Your task to perform on an android device: turn on location history Image 0: 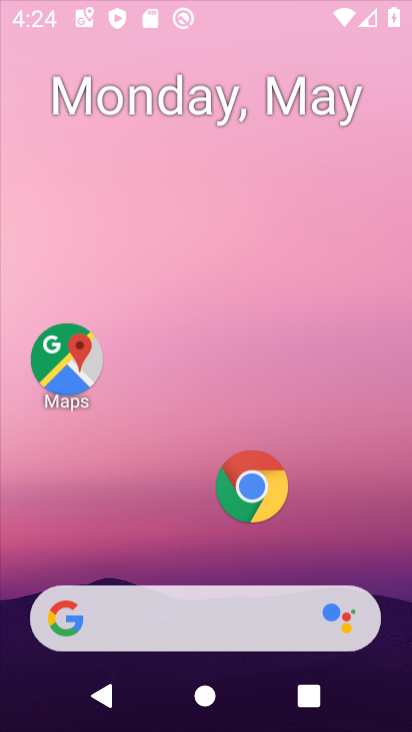
Step 0: click (141, 33)
Your task to perform on an android device: turn on location history Image 1: 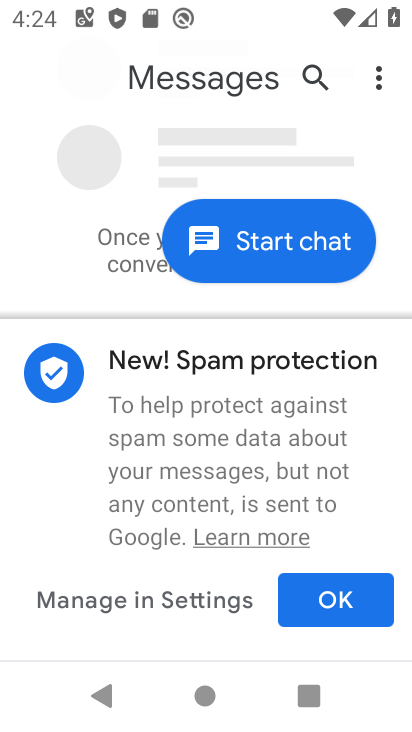
Step 1: press home button
Your task to perform on an android device: turn on location history Image 2: 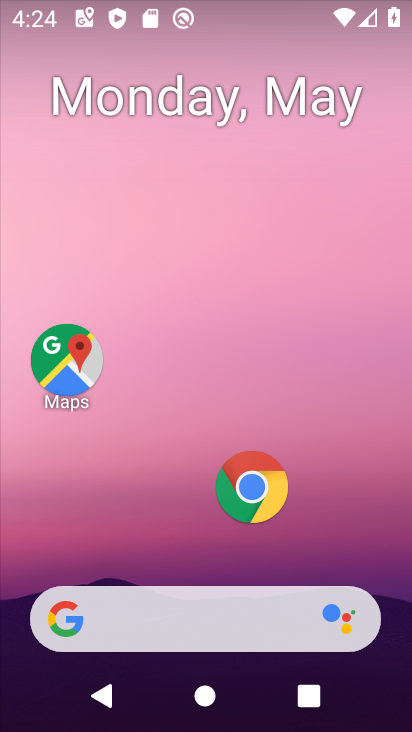
Step 2: drag from (151, 724) to (226, 32)
Your task to perform on an android device: turn on location history Image 3: 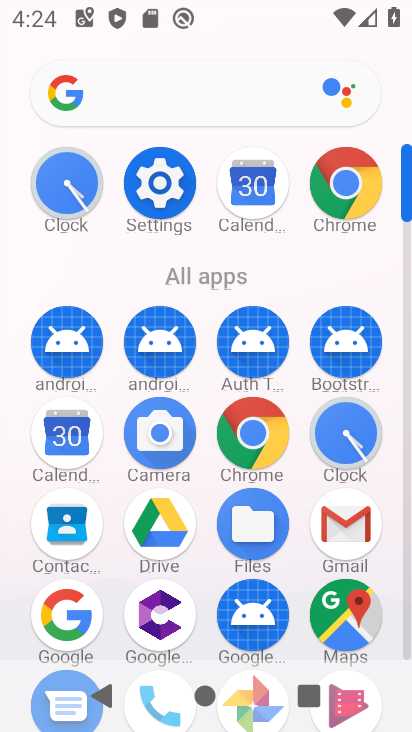
Step 3: click (145, 189)
Your task to perform on an android device: turn on location history Image 4: 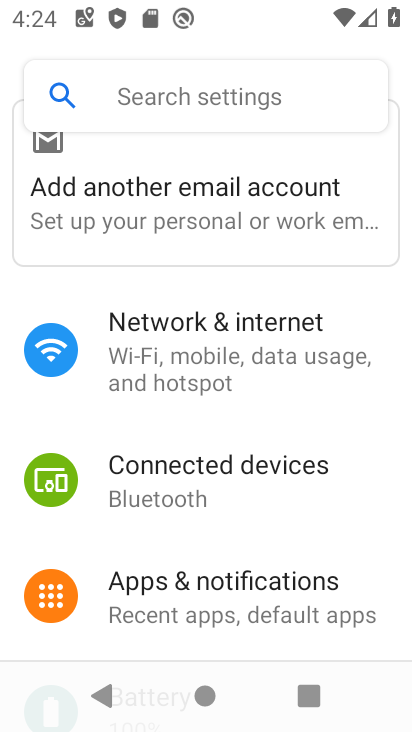
Step 4: drag from (255, 633) to (252, 108)
Your task to perform on an android device: turn on location history Image 5: 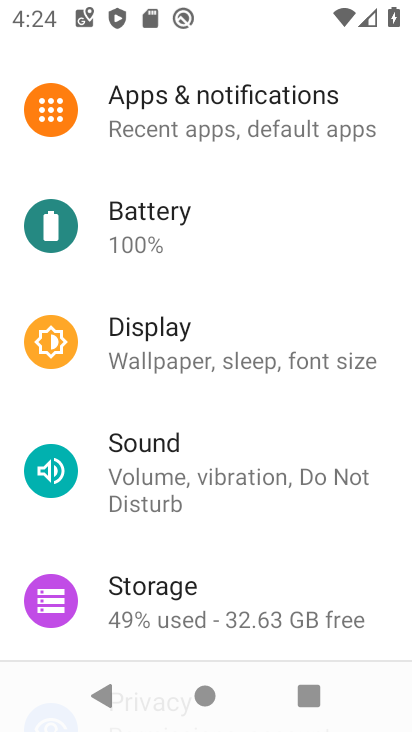
Step 5: drag from (249, 626) to (278, 189)
Your task to perform on an android device: turn on location history Image 6: 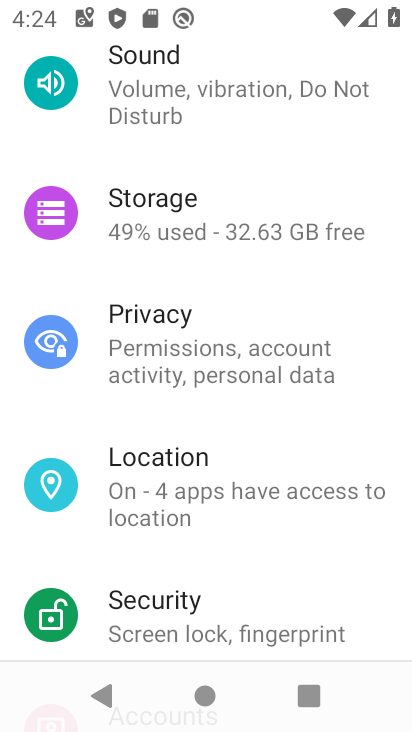
Step 6: click (155, 496)
Your task to perform on an android device: turn on location history Image 7: 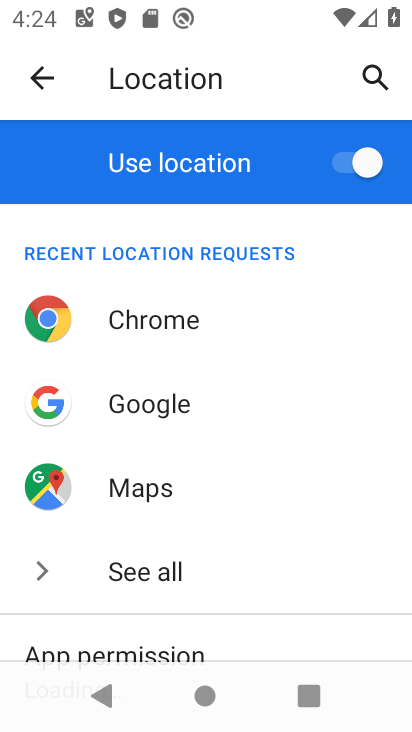
Step 7: drag from (258, 633) to (183, 109)
Your task to perform on an android device: turn on location history Image 8: 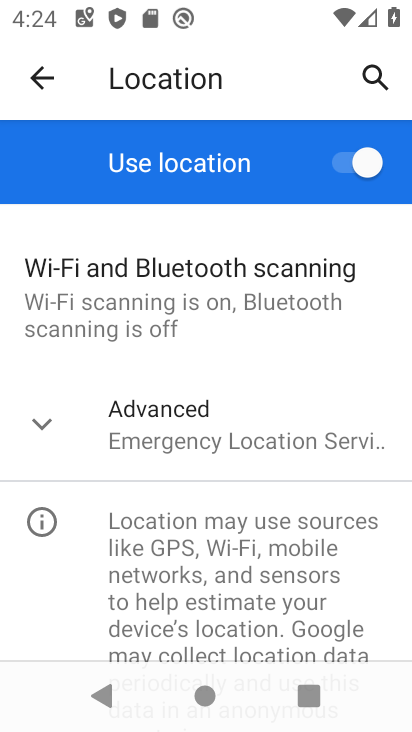
Step 8: click (174, 452)
Your task to perform on an android device: turn on location history Image 9: 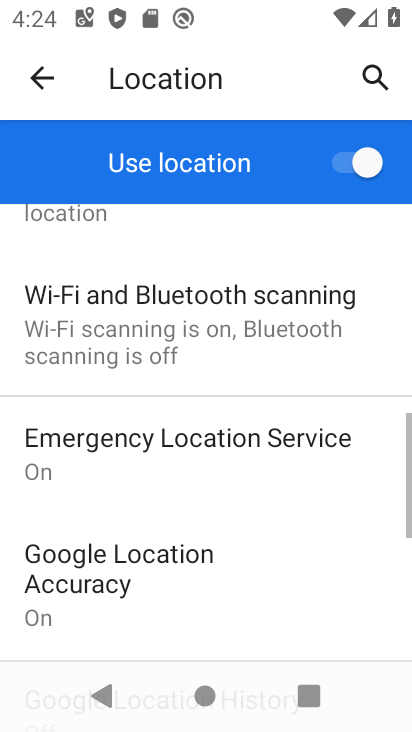
Step 9: drag from (243, 628) to (212, 288)
Your task to perform on an android device: turn on location history Image 10: 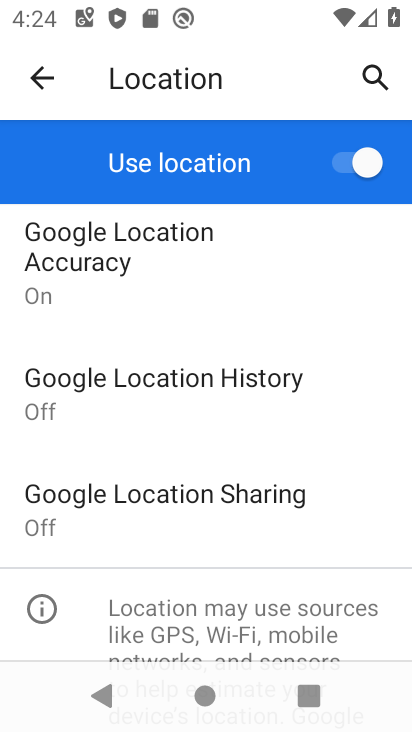
Step 10: click (209, 384)
Your task to perform on an android device: turn on location history Image 11: 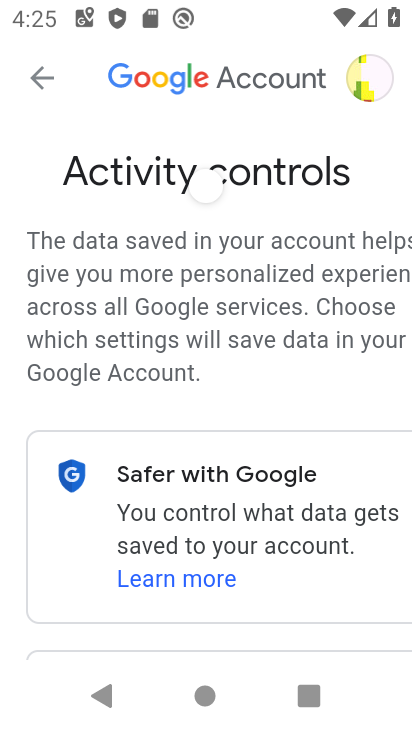
Step 11: drag from (296, 610) to (298, 195)
Your task to perform on an android device: turn on location history Image 12: 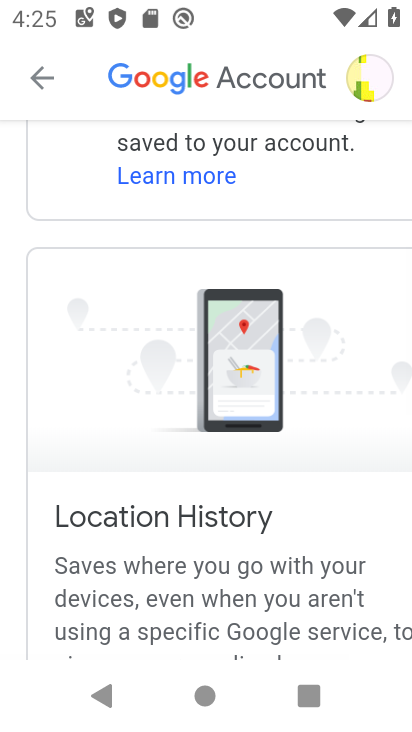
Step 12: click (344, 174)
Your task to perform on an android device: turn on location history Image 13: 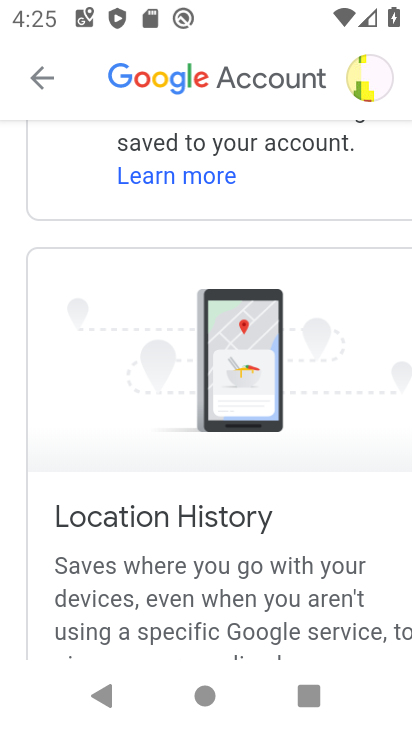
Step 13: task complete